Your task to perform on an android device: View the shopping cart on ebay. Add "razer thresher" to the cart on ebay, then select checkout. Image 0: 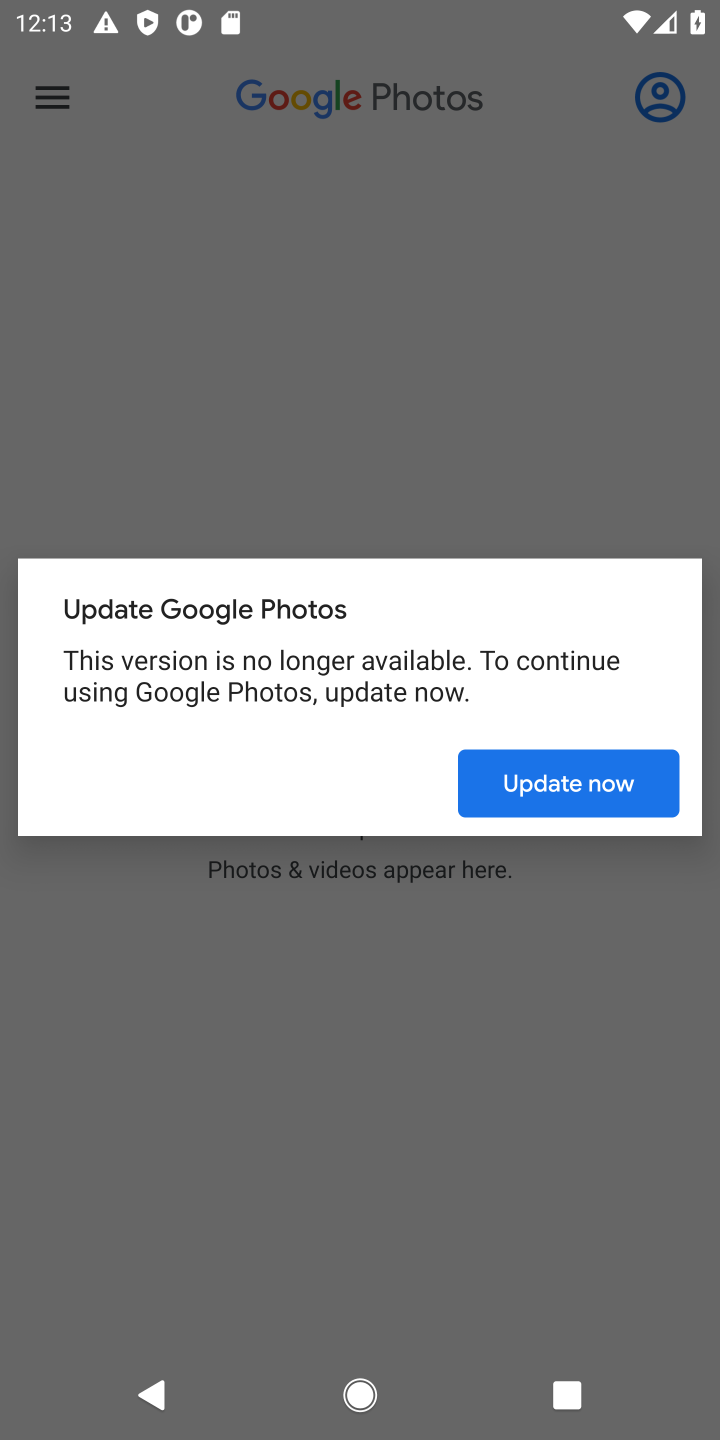
Step 0: press home button
Your task to perform on an android device: View the shopping cart on ebay. Add "razer thresher" to the cart on ebay, then select checkout. Image 1: 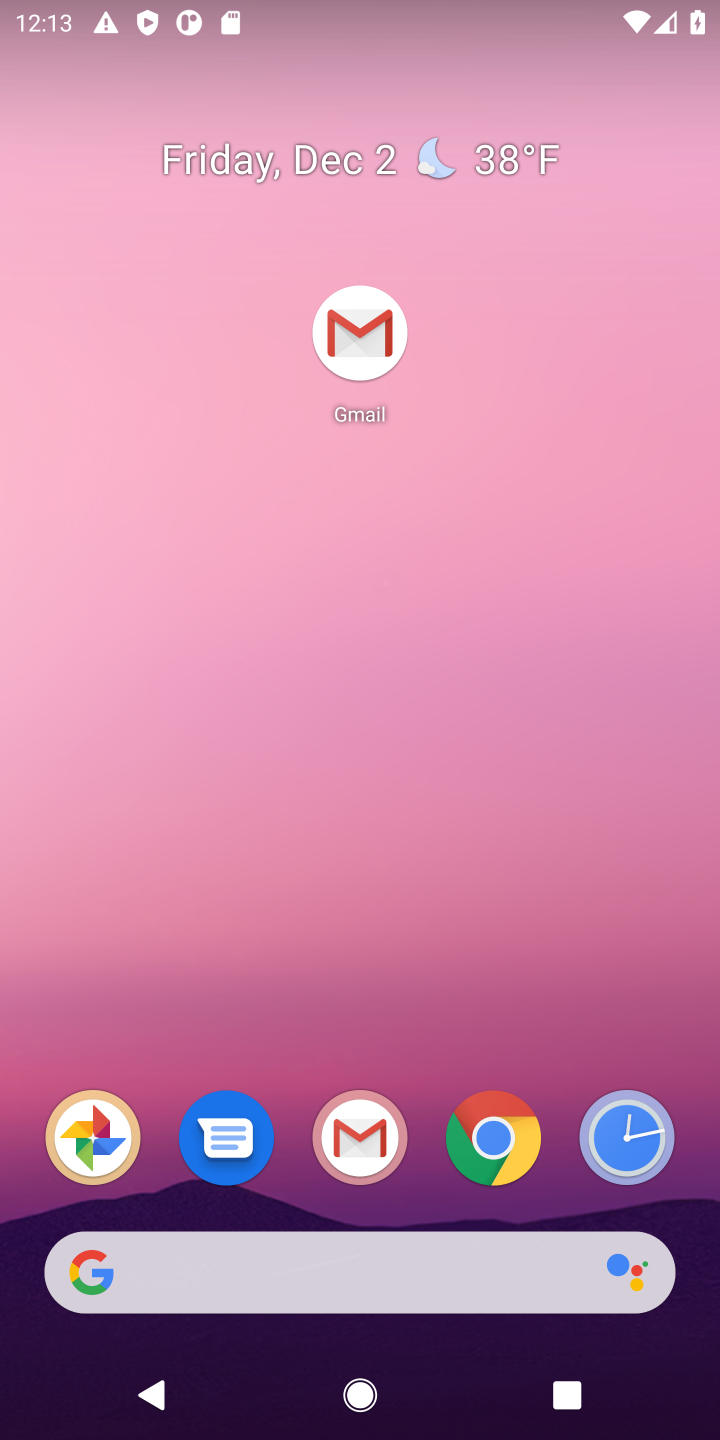
Step 1: drag from (437, 1210) to (472, 304)
Your task to perform on an android device: View the shopping cart on ebay. Add "razer thresher" to the cart on ebay, then select checkout. Image 2: 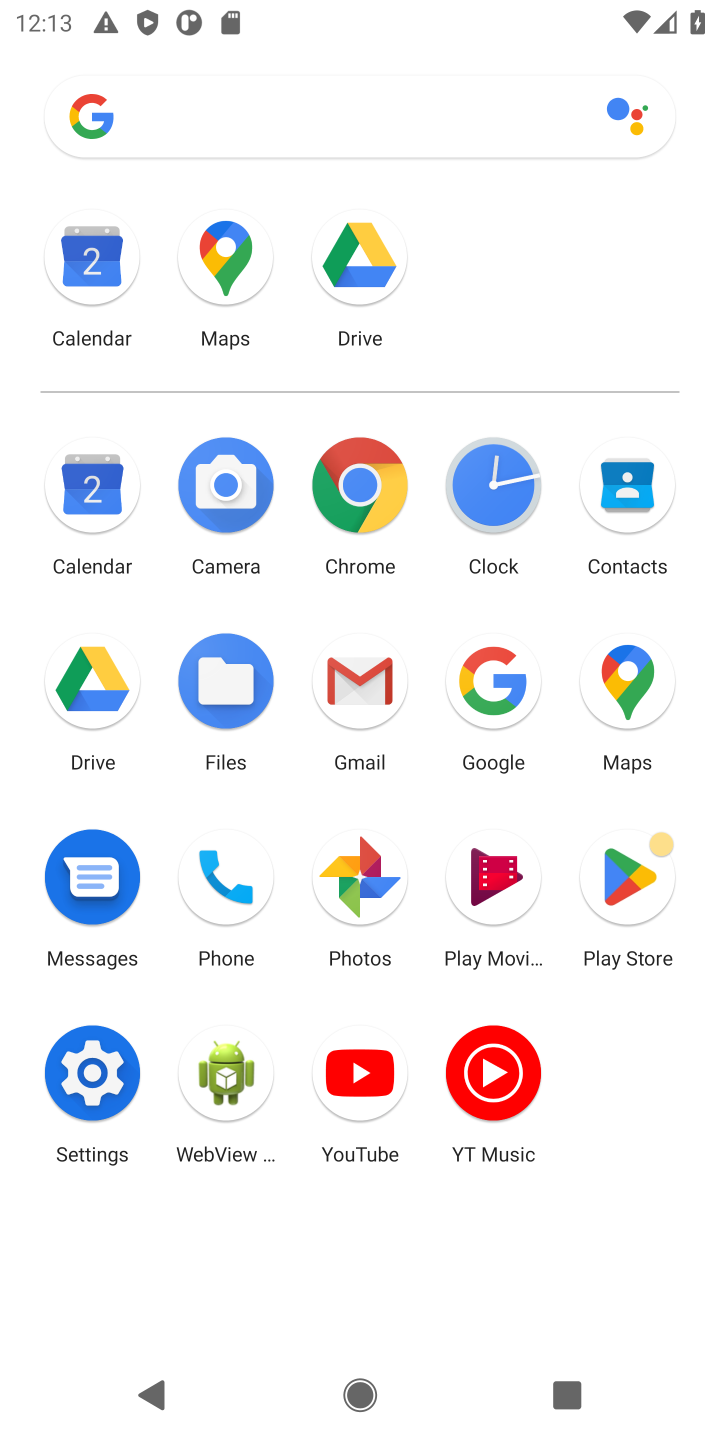
Step 2: click (476, 720)
Your task to perform on an android device: View the shopping cart on ebay. Add "razer thresher" to the cart on ebay, then select checkout. Image 3: 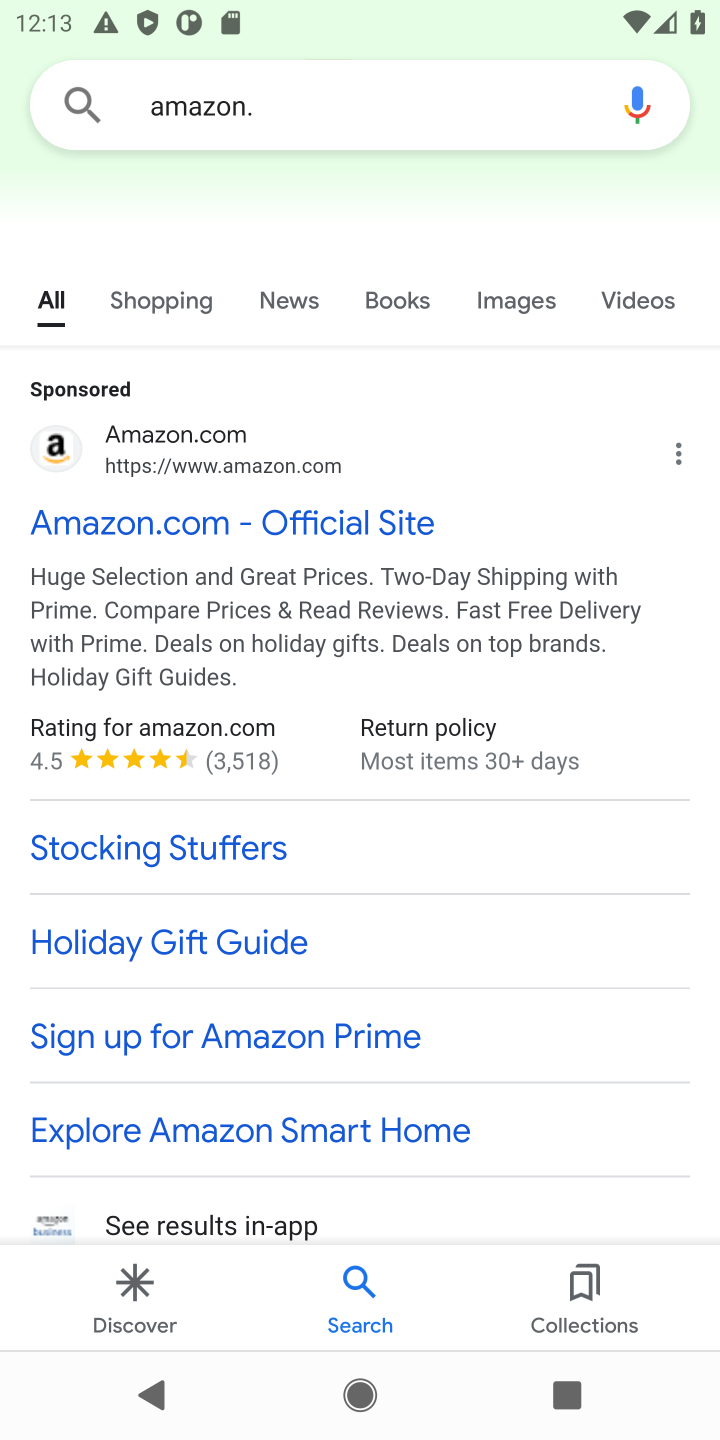
Step 3: click (327, 129)
Your task to perform on an android device: View the shopping cart on ebay. Add "razer thresher" to the cart on ebay, then select checkout. Image 4: 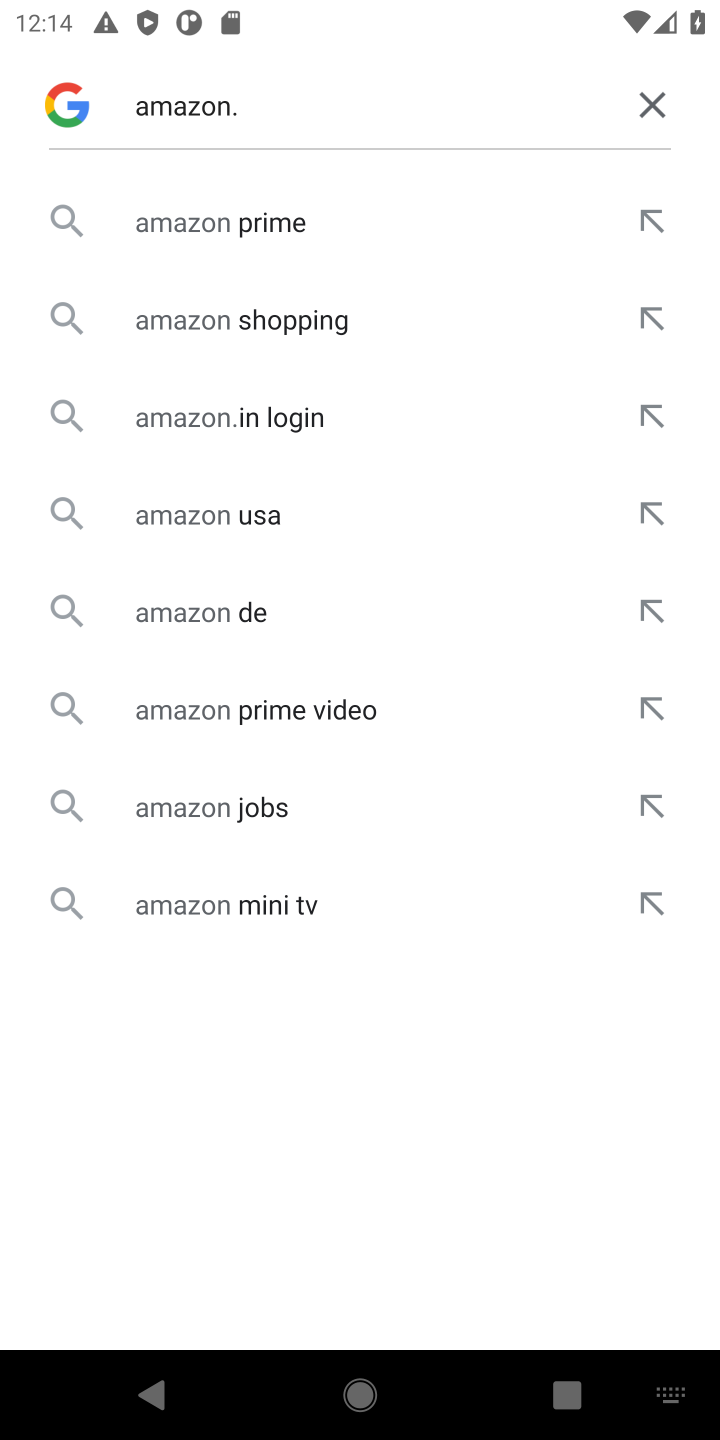
Step 4: click (655, 115)
Your task to perform on an android device: View the shopping cart on ebay. Add "razer thresher" to the cart on ebay, then select checkout. Image 5: 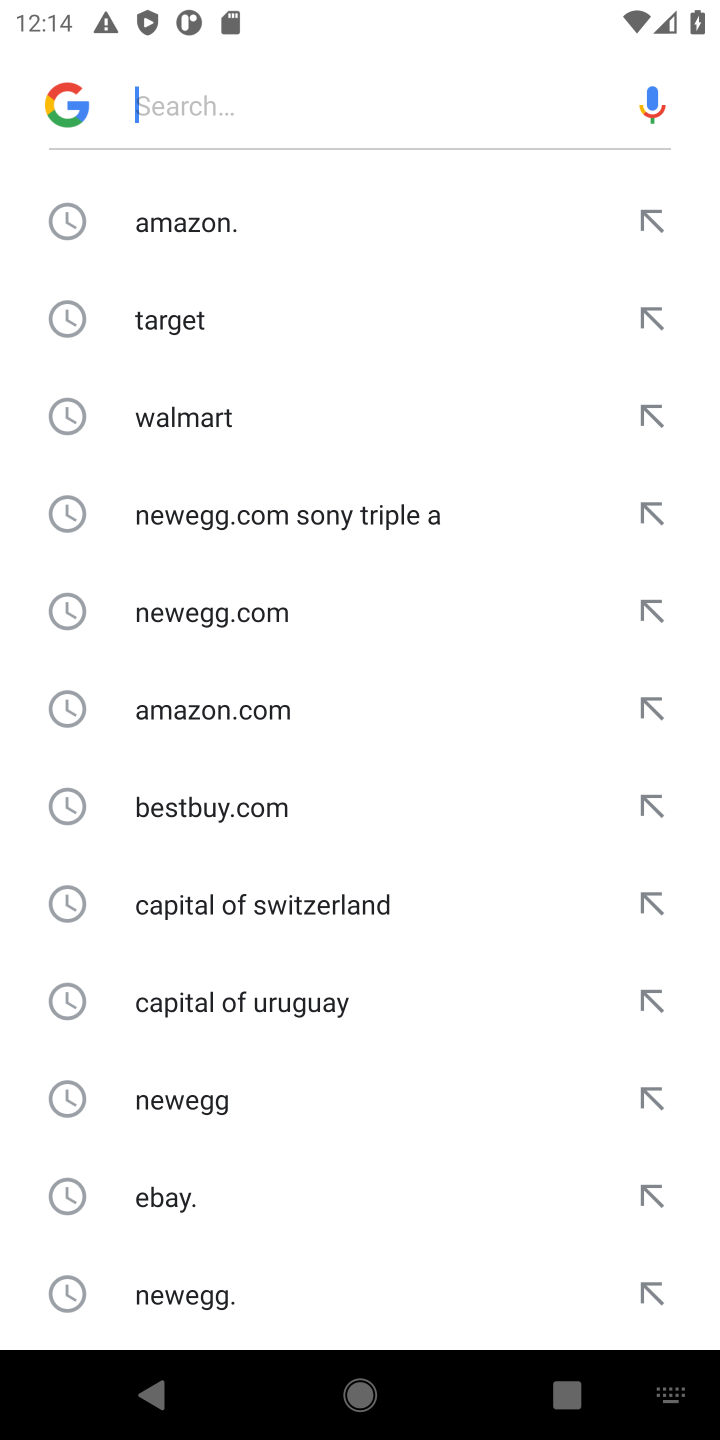
Step 5: click (222, 803)
Your task to perform on an android device: View the shopping cart on ebay. Add "razer thresher" to the cart on ebay, then select checkout. Image 6: 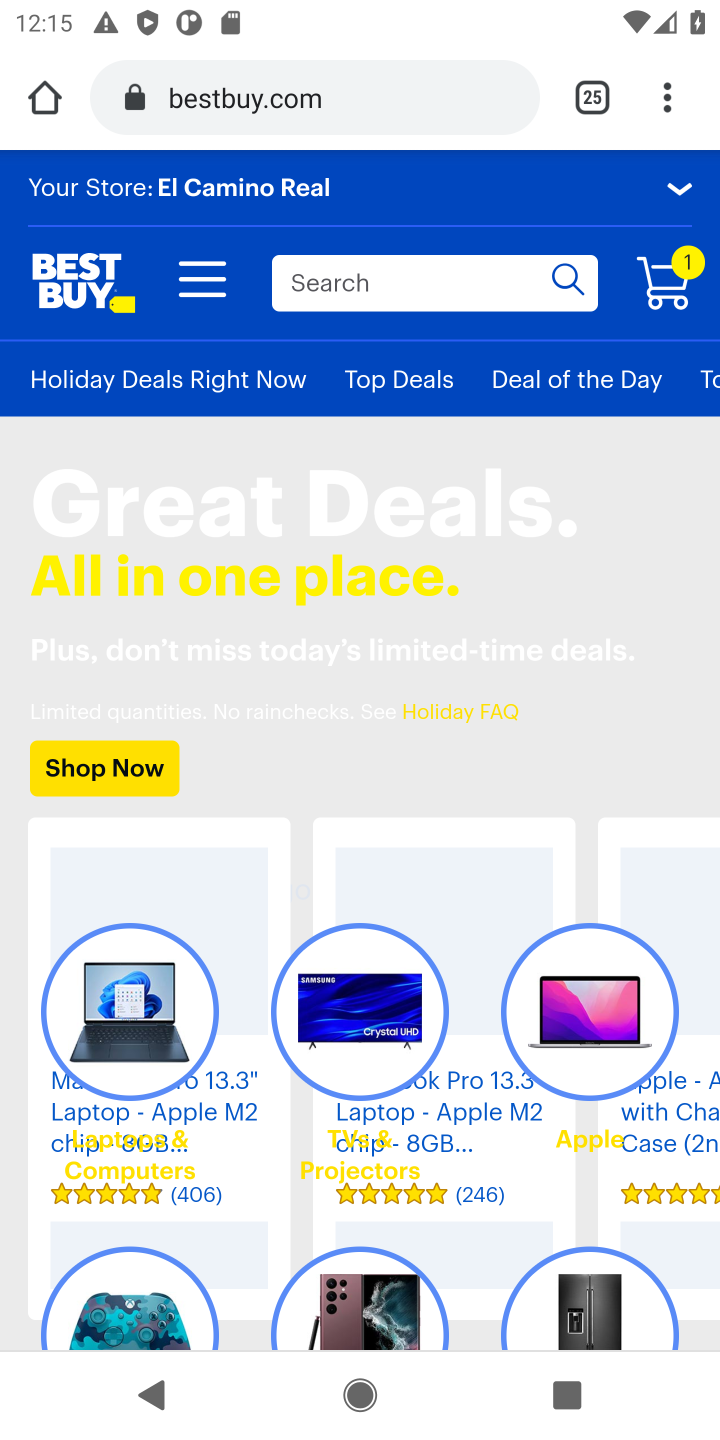
Step 6: click (437, 282)
Your task to perform on an android device: View the shopping cart on ebay. Add "razer thresher" to the cart on ebay, then select checkout. Image 7: 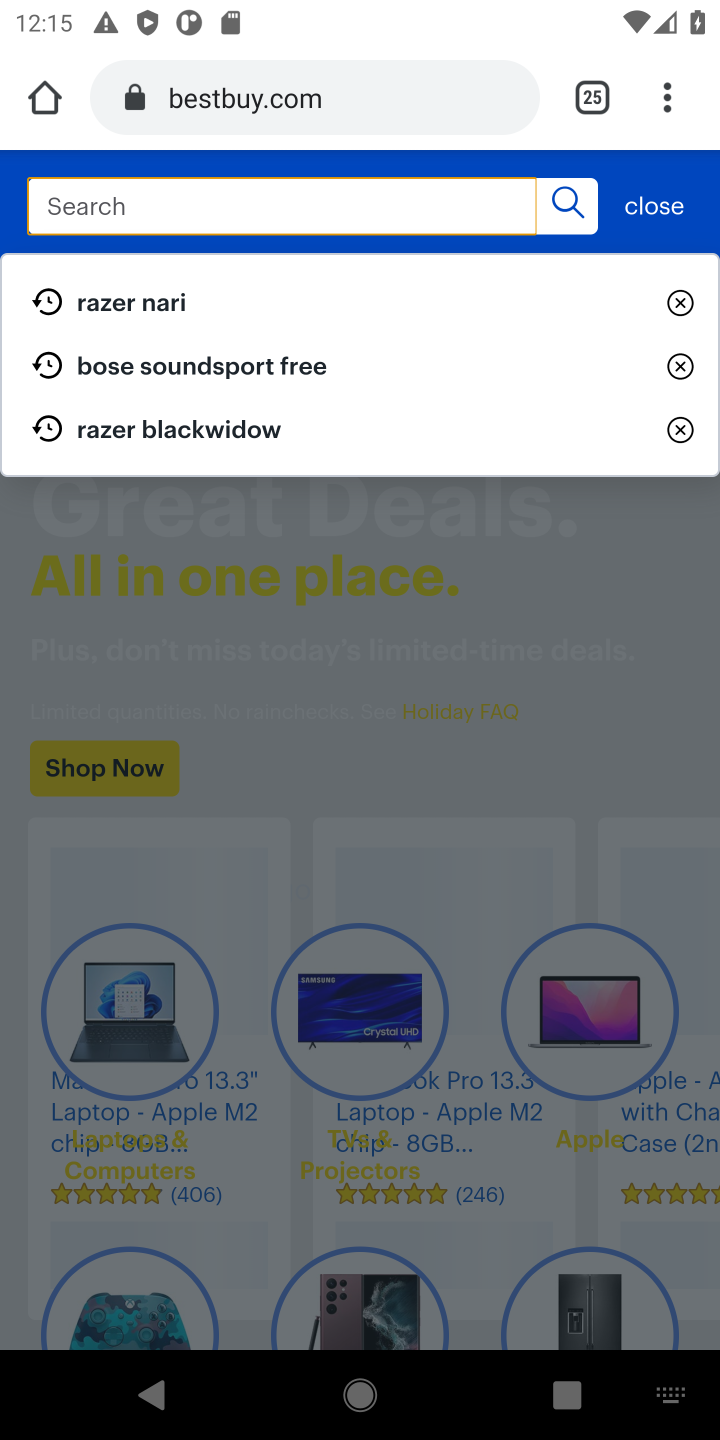
Step 7: type "razer thresher"
Your task to perform on an android device: View the shopping cart on ebay. Add "razer thresher" to the cart on ebay, then select checkout. Image 8: 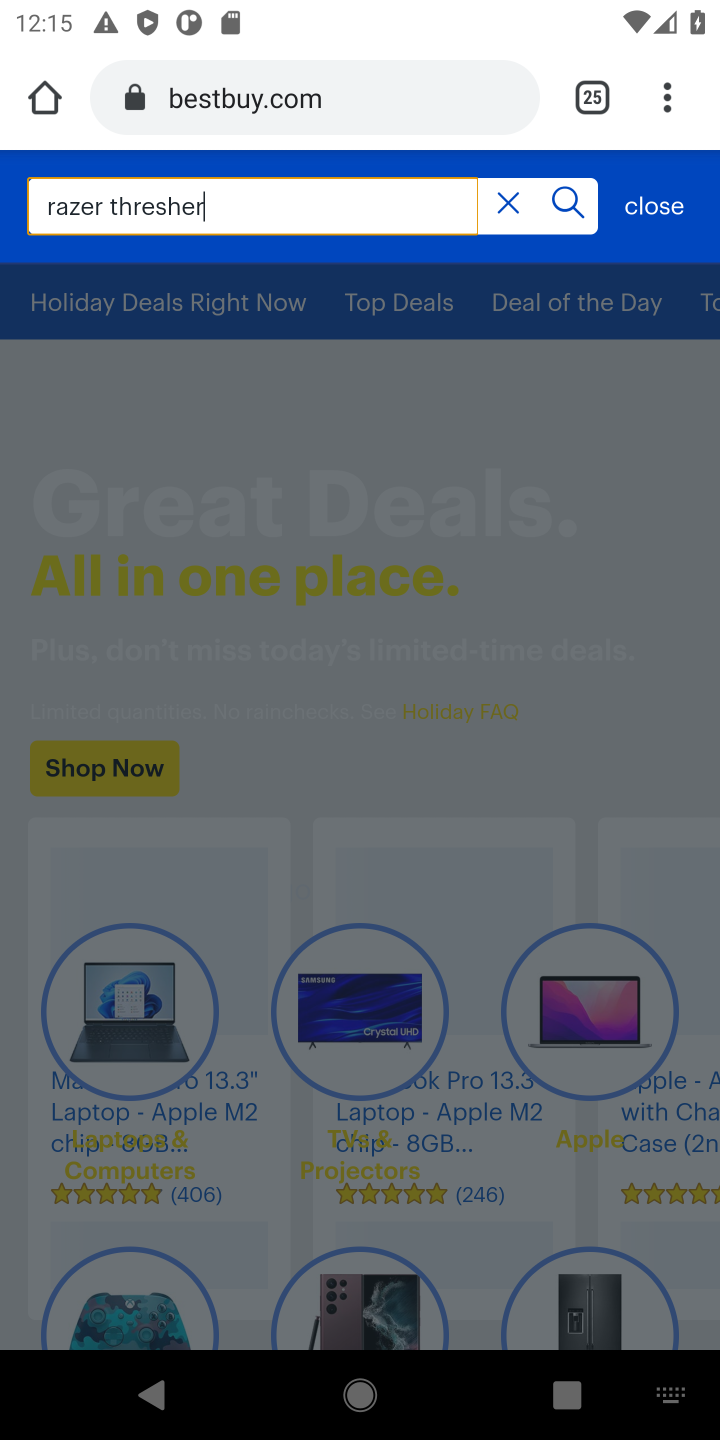
Step 8: click (565, 201)
Your task to perform on an android device: View the shopping cart on ebay. Add "razer thresher" to the cart on ebay, then select checkout. Image 9: 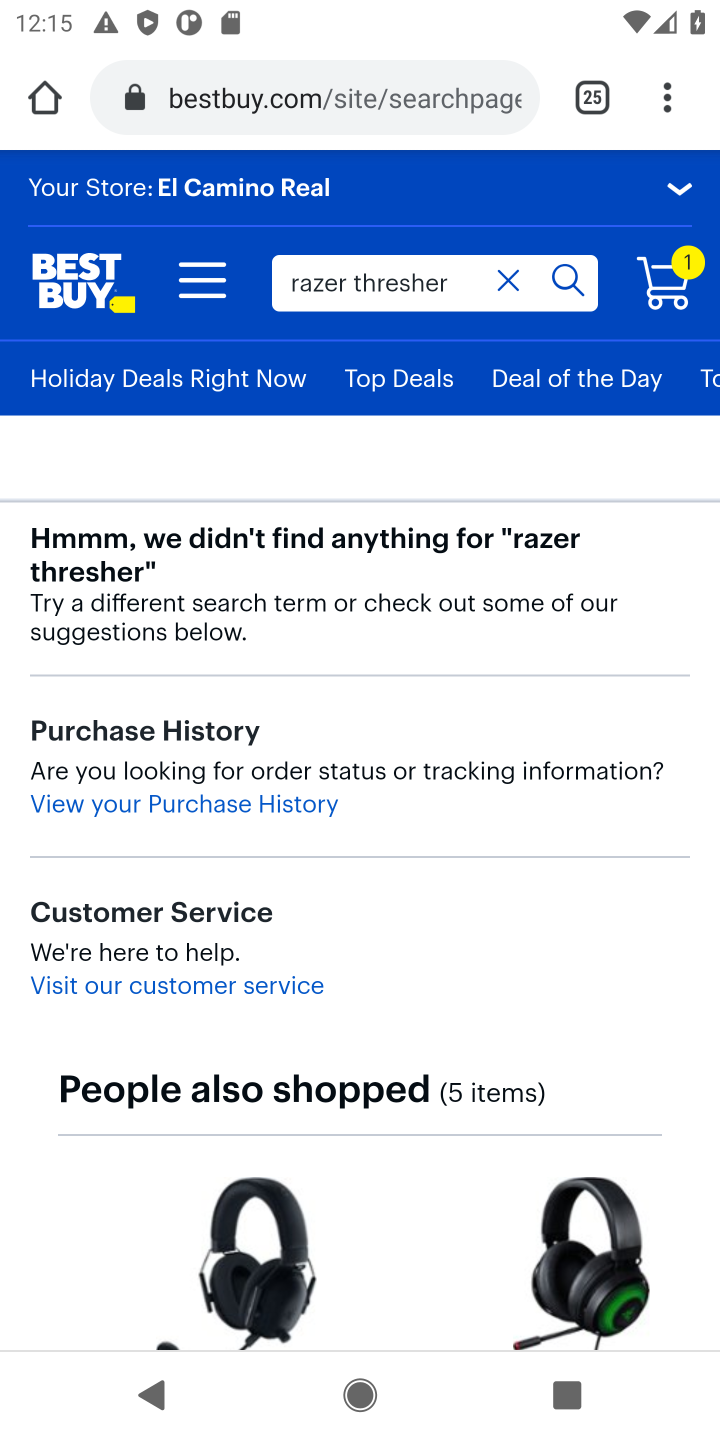
Step 9: task complete